Your task to perform on an android device: find snoozed emails in the gmail app Image 0: 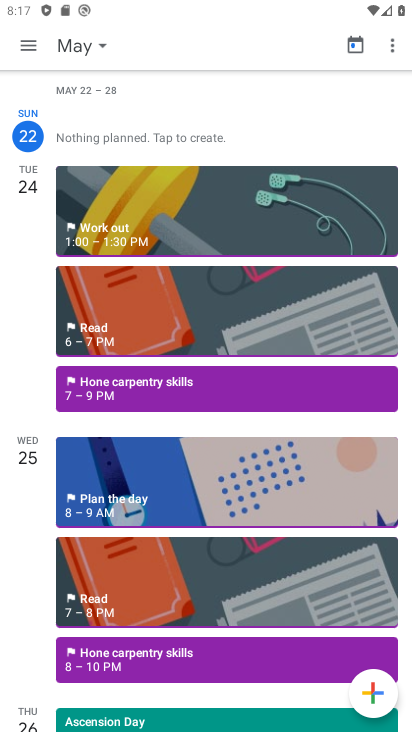
Step 0: press home button
Your task to perform on an android device: find snoozed emails in the gmail app Image 1: 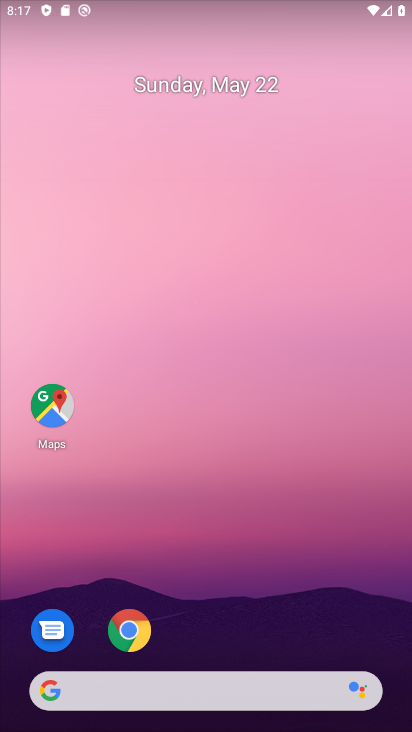
Step 1: drag from (283, 600) to (275, 95)
Your task to perform on an android device: find snoozed emails in the gmail app Image 2: 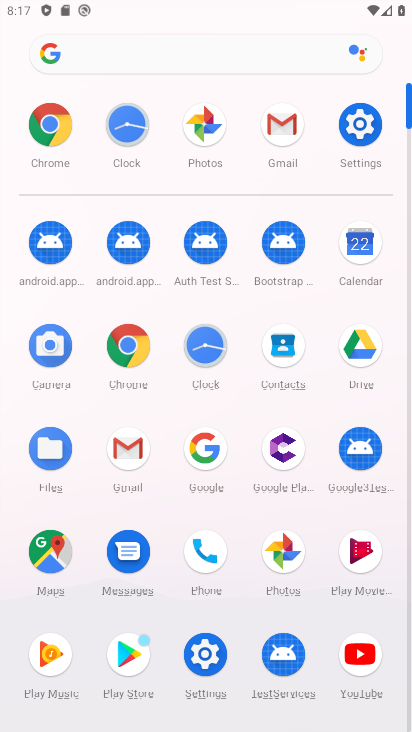
Step 2: click (283, 161)
Your task to perform on an android device: find snoozed emails in the gmail app Image 3: 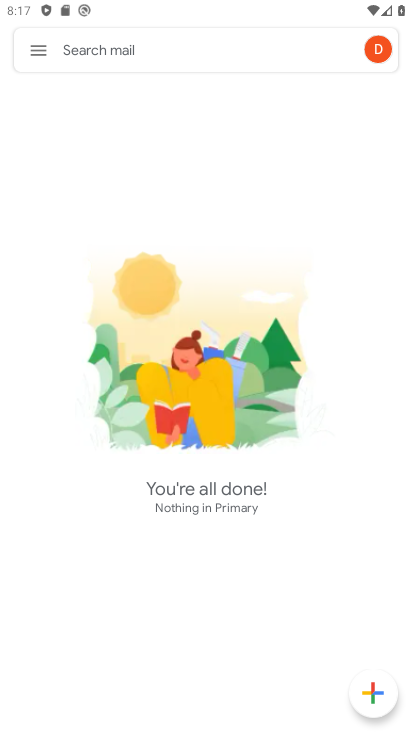
Step 3: click (38, 60)
Your task to perform on an android device: find snoozed emails in the gmail app Image 4: 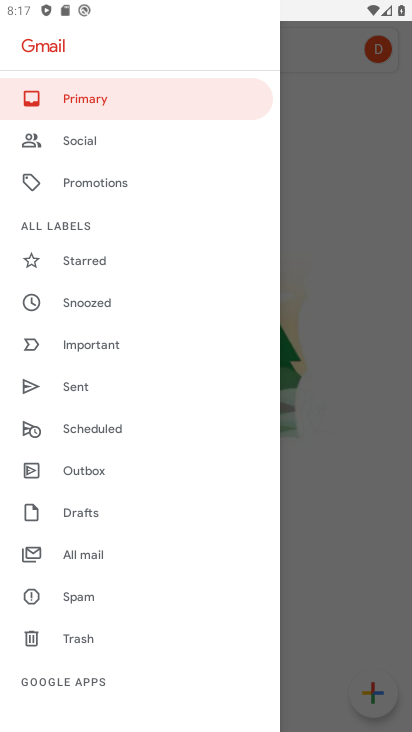
Step 4: drag from (71, 690) to (129, 350)
Your task to perform on an android device: find snoozed emails in the gmail app Image 5: 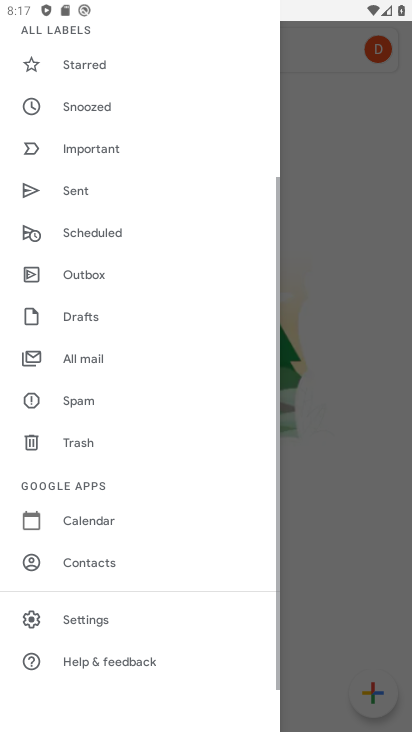
Step 5: click (136, 629)
Your task to perform on an android device: find snoozed emails in the gmail app Image 6: 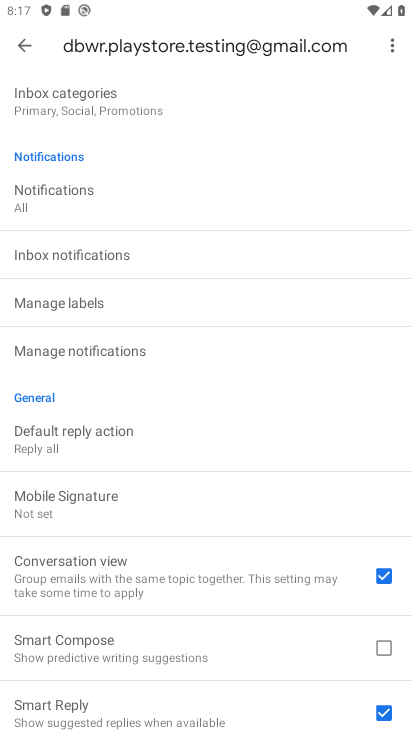
Step 6: click (21, 40)
Your task to perform on an android device: find snoozed emails in the gmail app Image 7: 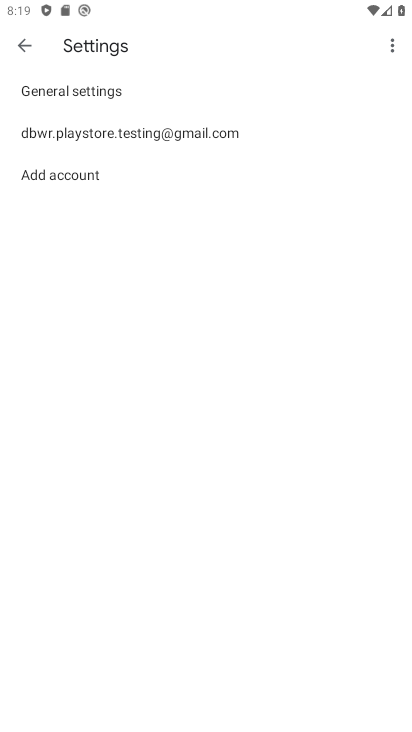
Step 7: click (28, 61)
Your task to perform on an android device: find snoozed emails in the gmail app Image 8: 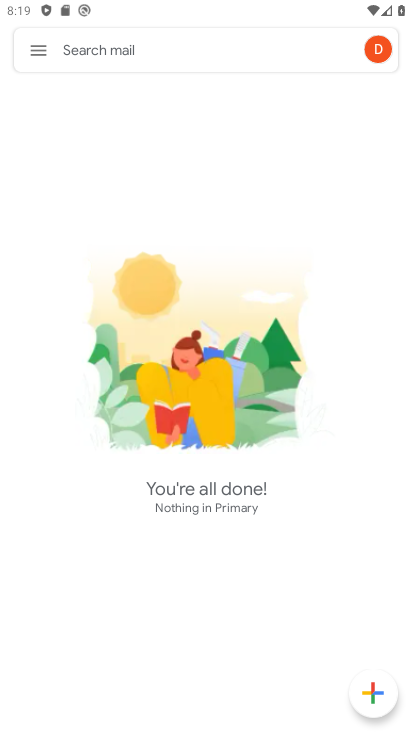
Step 8: task complete